Your task to perform on an android device: Go to privacy settings Image 0: 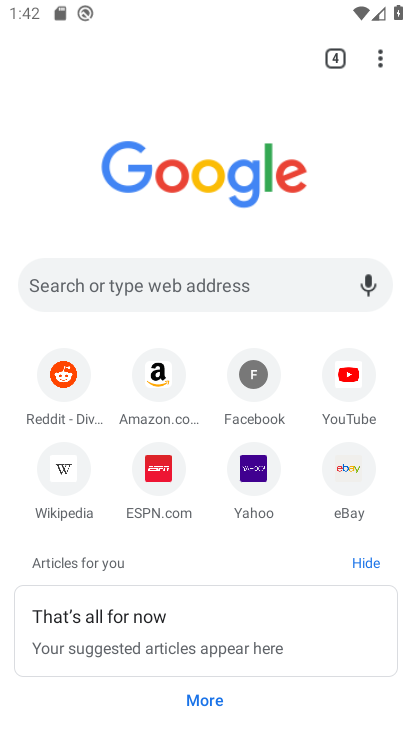
Step 0: press home button
Your task to perform on an android device: Go to privacy settings Image 1: 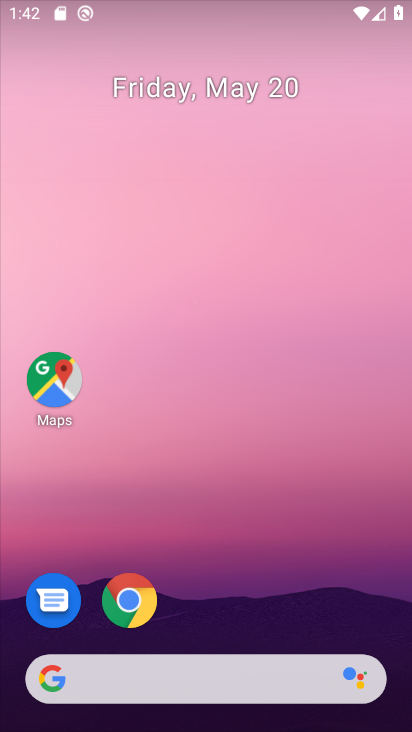
Step 1: drag from (362, 543) to (160, 37)
Your task to perform on an android device: Go to privacy settings Image 2: 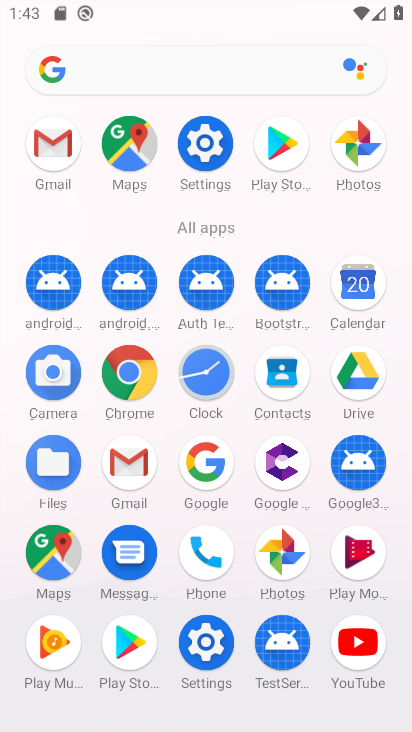
Step 2: click (210, 126)
Your task to perform on an android device: Go to privacy settings Image 3: 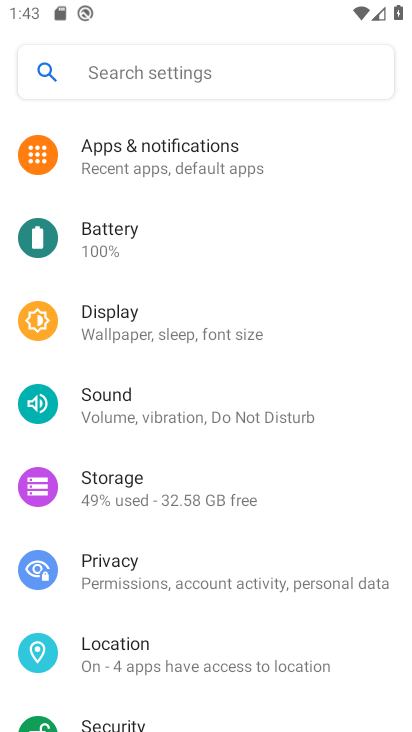
Step 3: click (228, 582)
Your task to perform on an android device: Go to privacy settings Image 4: 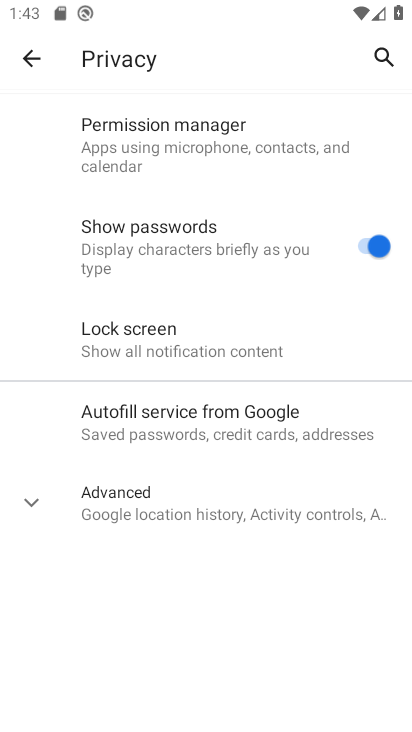
Step 4: task complete